Your task to perform on an android device: turn off sleep mode Image 0: 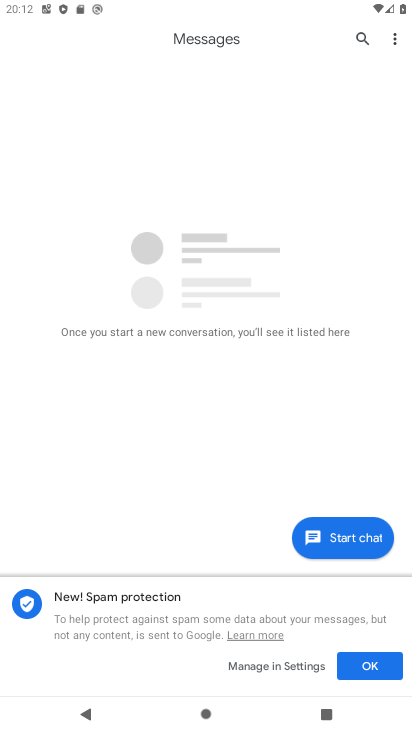
Step 0: press home button
Your task to perform on an android device: turn off sleep mode Image 1: 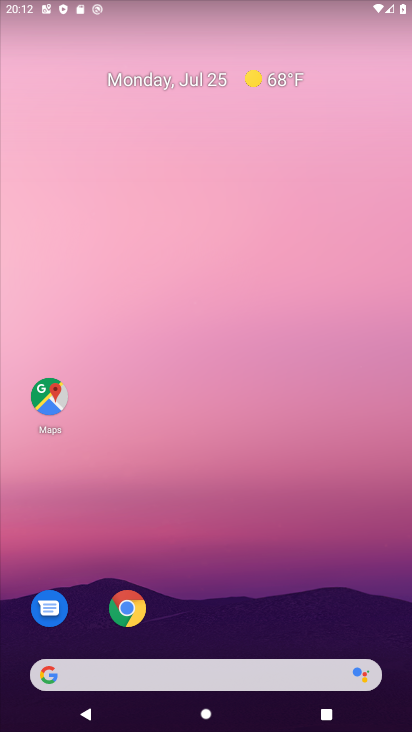
Step 1: drag from (225, 631) to (232, 19)
Your task to perform on an android device: turn off sleep mode Image 2: 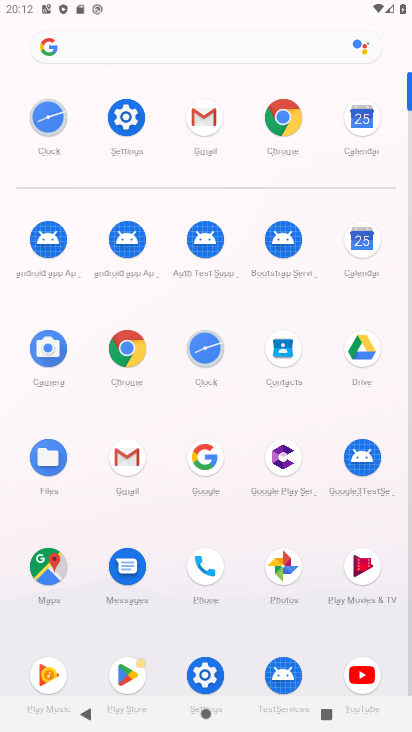
Step 2: click (118, 119)
Your task to perform on an android device: turn off sleep mode Image 3: 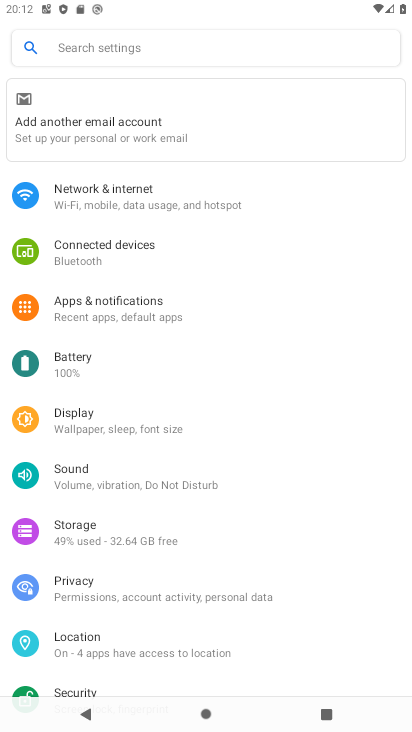
Step 3: click (76, 421)
Your task to perform on an android device: turn off sleep mode Image 4: 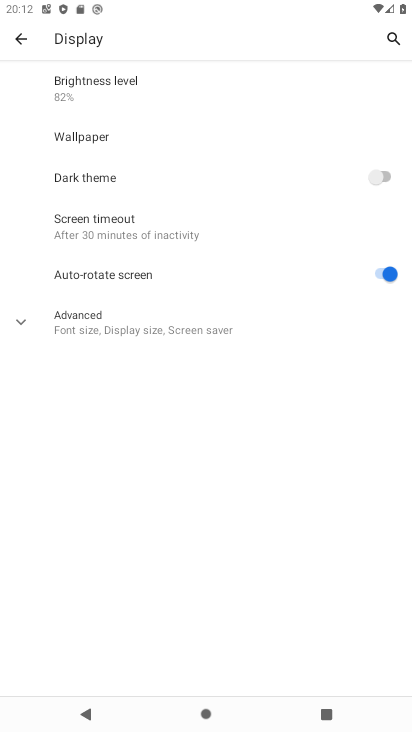
Step 4: click (12, 319)
Your task to perform on an android device: turn off sleep mode Image 5: 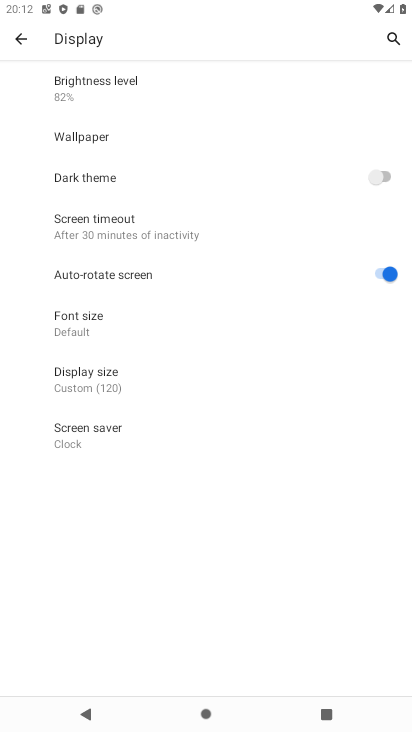
Step 5: task complete